Your task to perform on an android device: Open Chrome and go to settings Image 0: 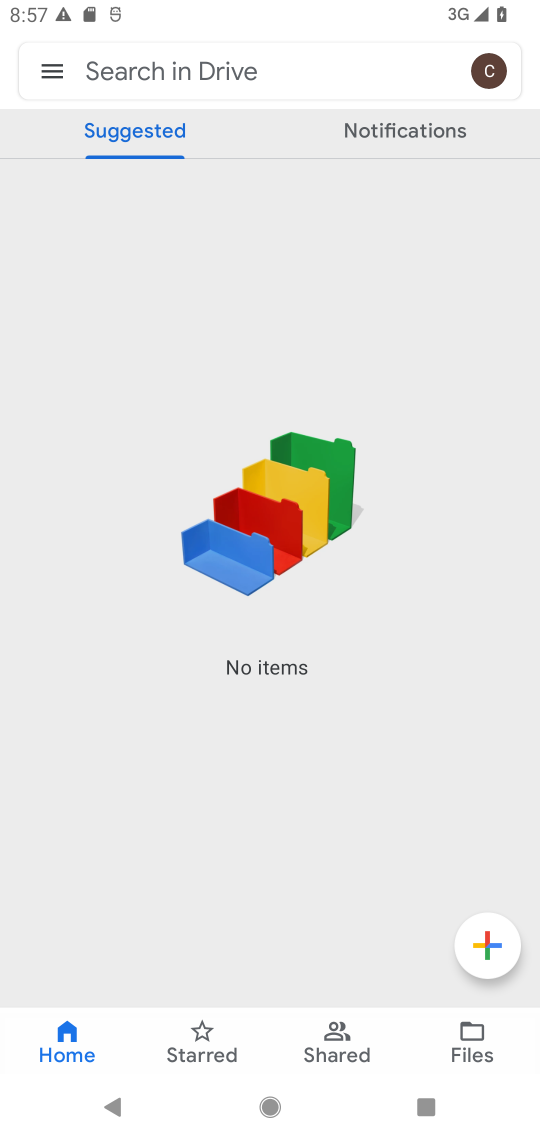
Step 0: press home button
Your task to perform on an android device: Open Chrome and go to settings Image 1: 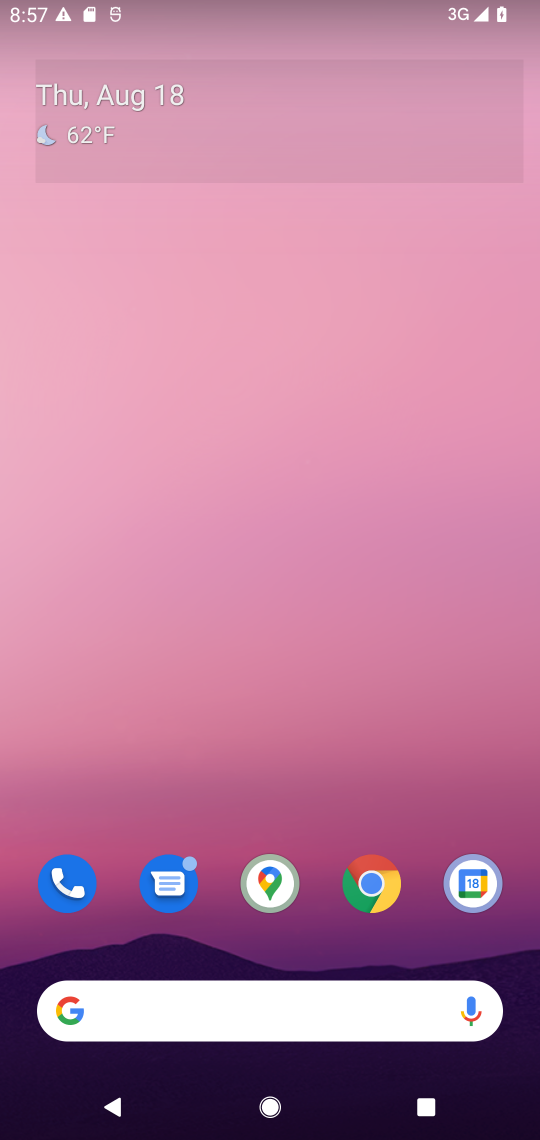
Step 1: click (362, 877)
Your task to perform on an android device: Open Chrome and go to settings Image 2: 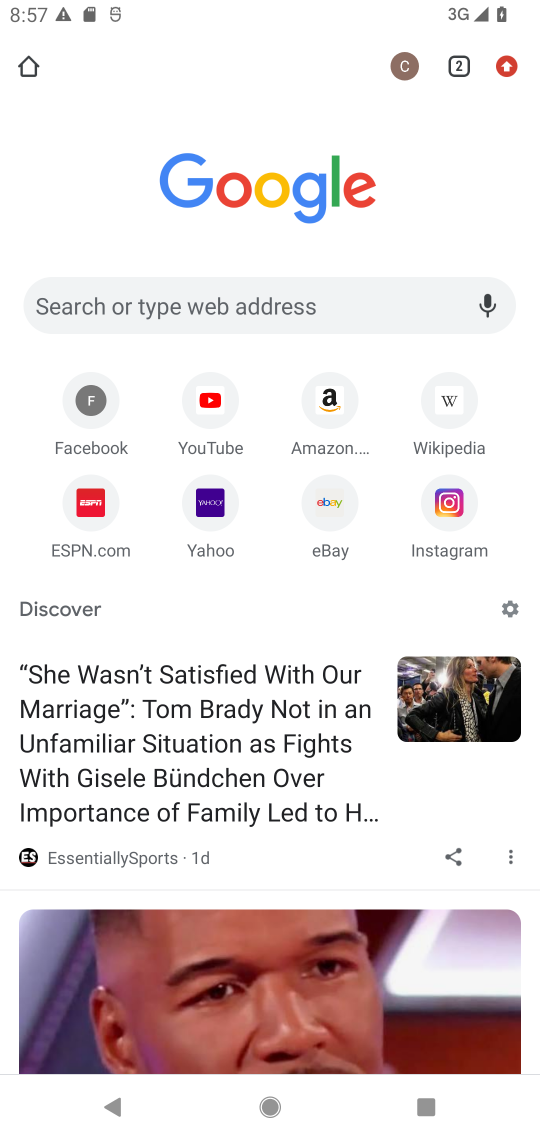
Step 2: click (512, 59)
Your task to perform on an android device: Open Chrome and go to settings Image 3: 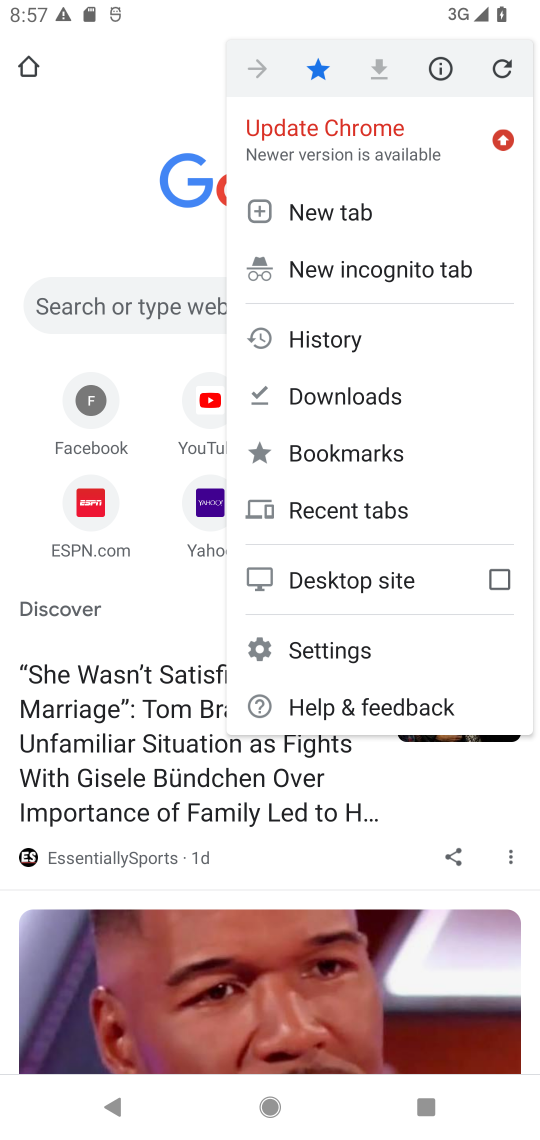
Step 3: click (313, 645)
Your task to perform on an android device: Open Chrome and go to settings Image 4: 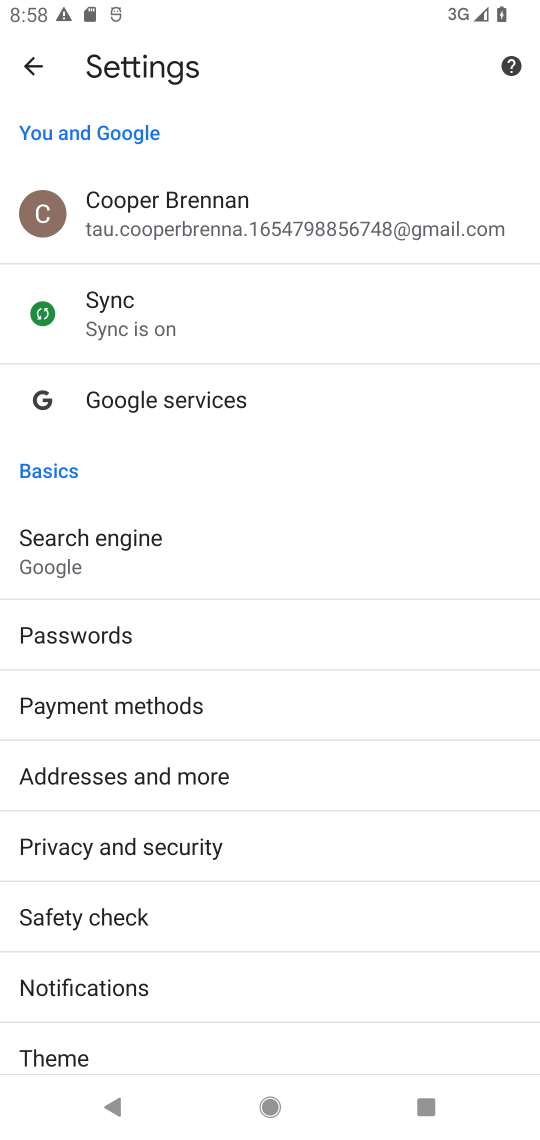
Step 4: drag from (267, 1017) to (340, 297)
Your task to perform on an android device: Open Chrome and go to settings Image 5: 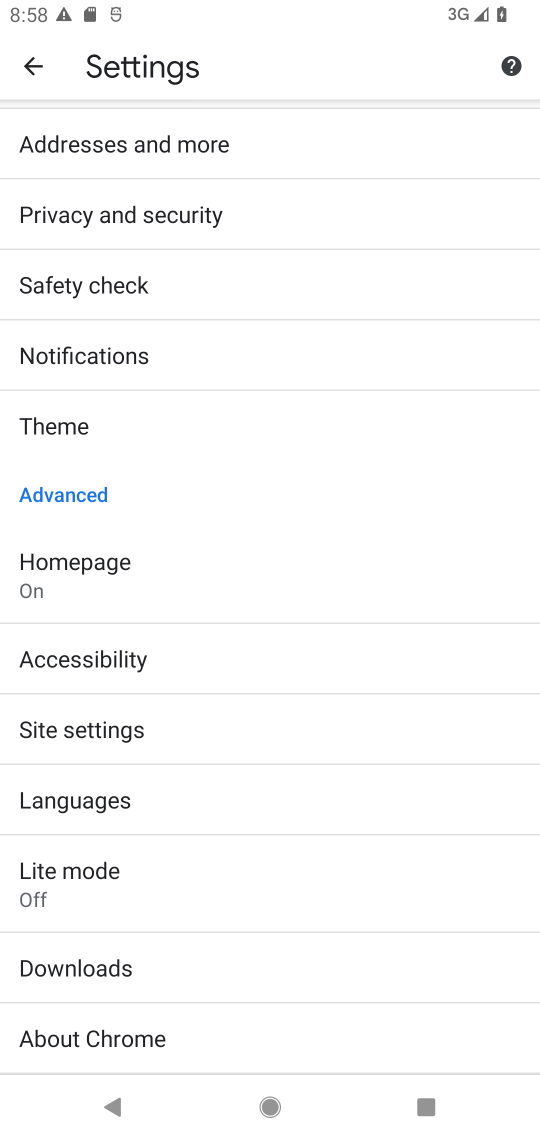
Step 5: click (105, 731)
Your task to perform on an android device: Open Chrome and go to settings Image 6: 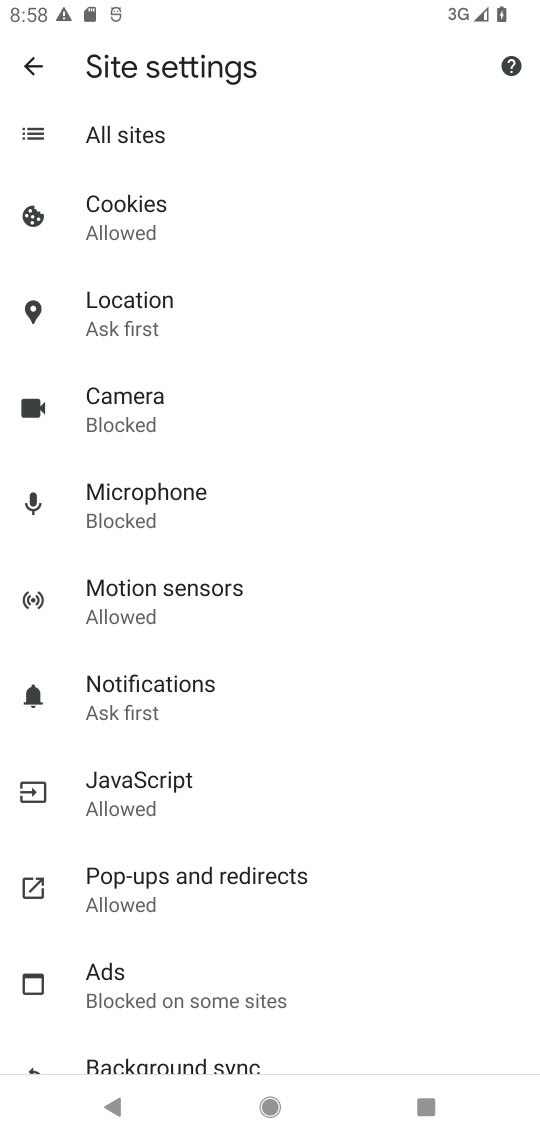
Step 6: task complete